Your task to perform on an android device: turn on bluetooth scan Image 0: 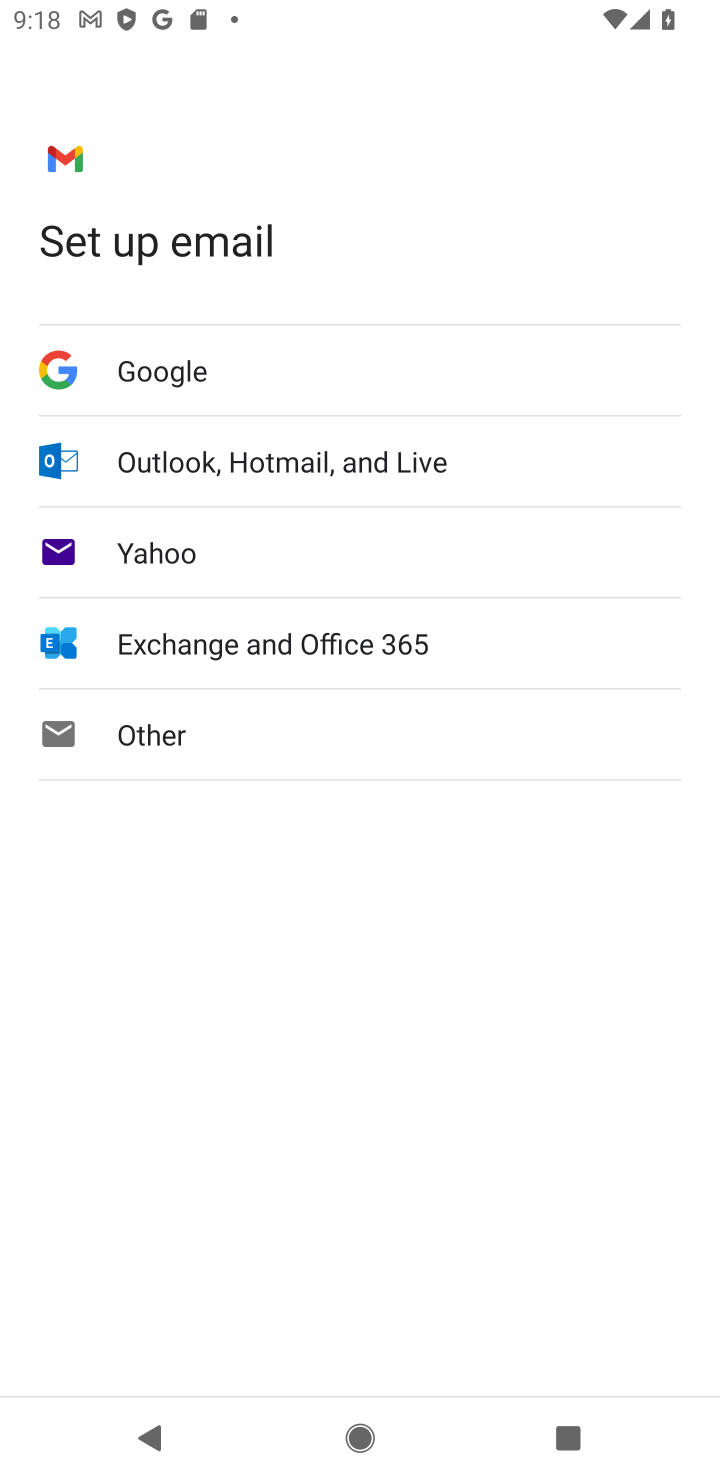
Step 0: press home button
Your task to perform on an android device: turn on bluetooth scan Image 1: 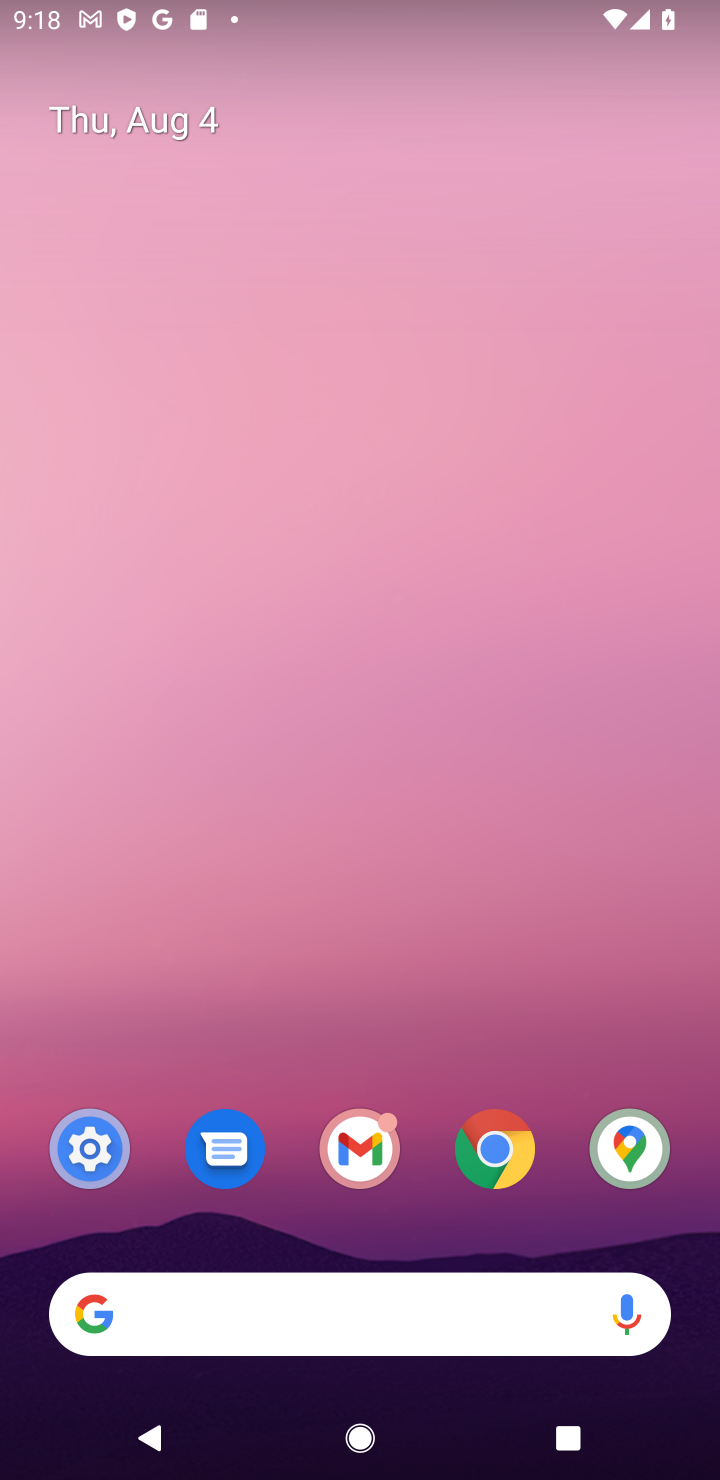
Step 1: click (83, 1144)
Your task to perform on an android device: turn on bluetooth scan Image 2: 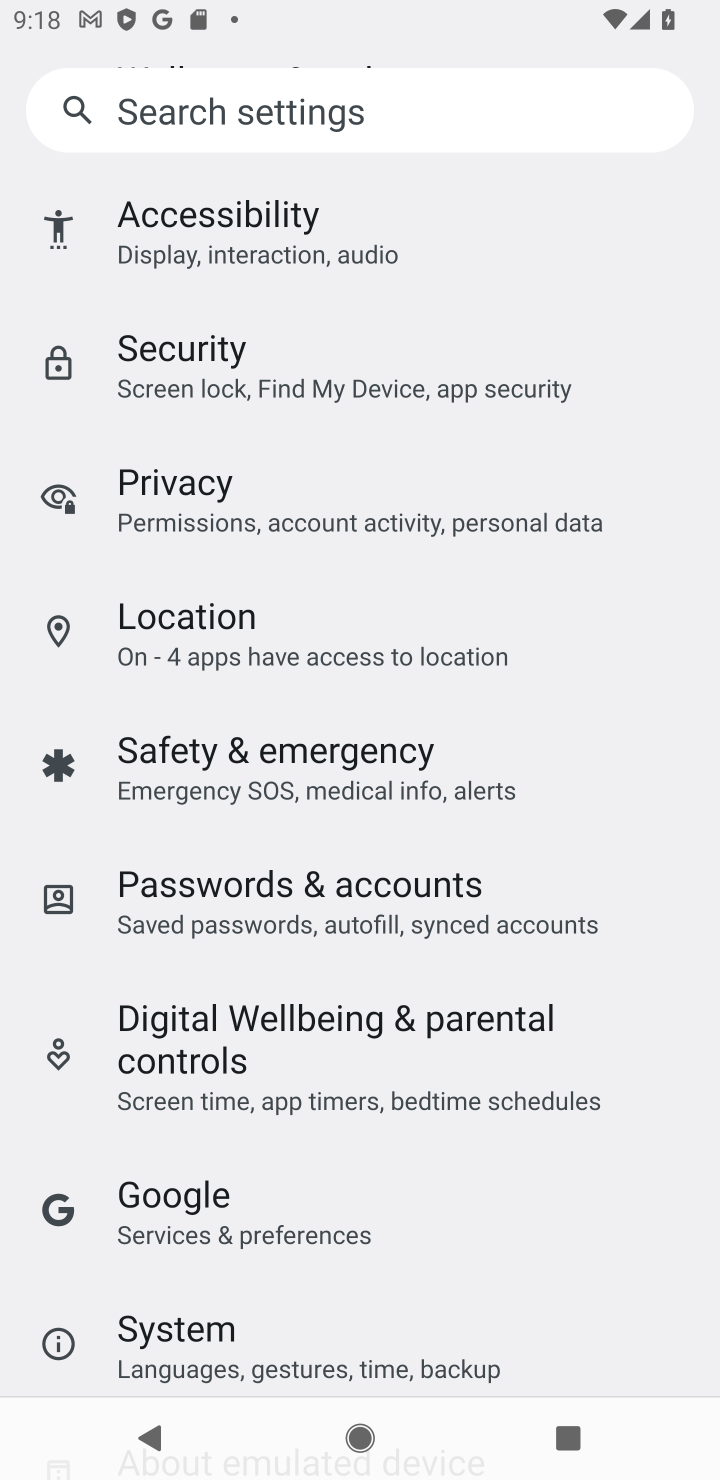
Step 2: drag from (535, 363) to (542, 821)
Your task to perform on an android device: turn on bluetooth scan Image 3: 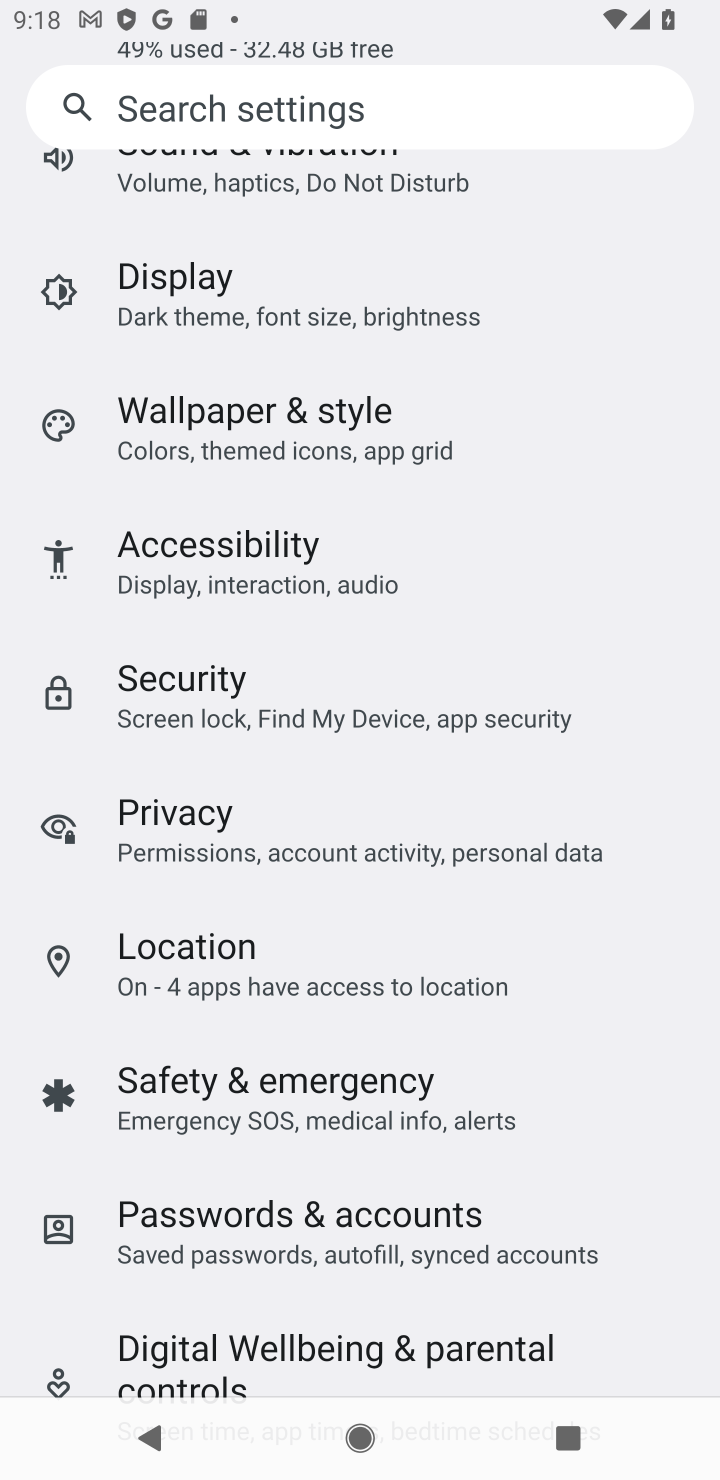
Step 3: click (205, 959)
Your task to perform on an android device: turn on bluetooth scan Image 4: 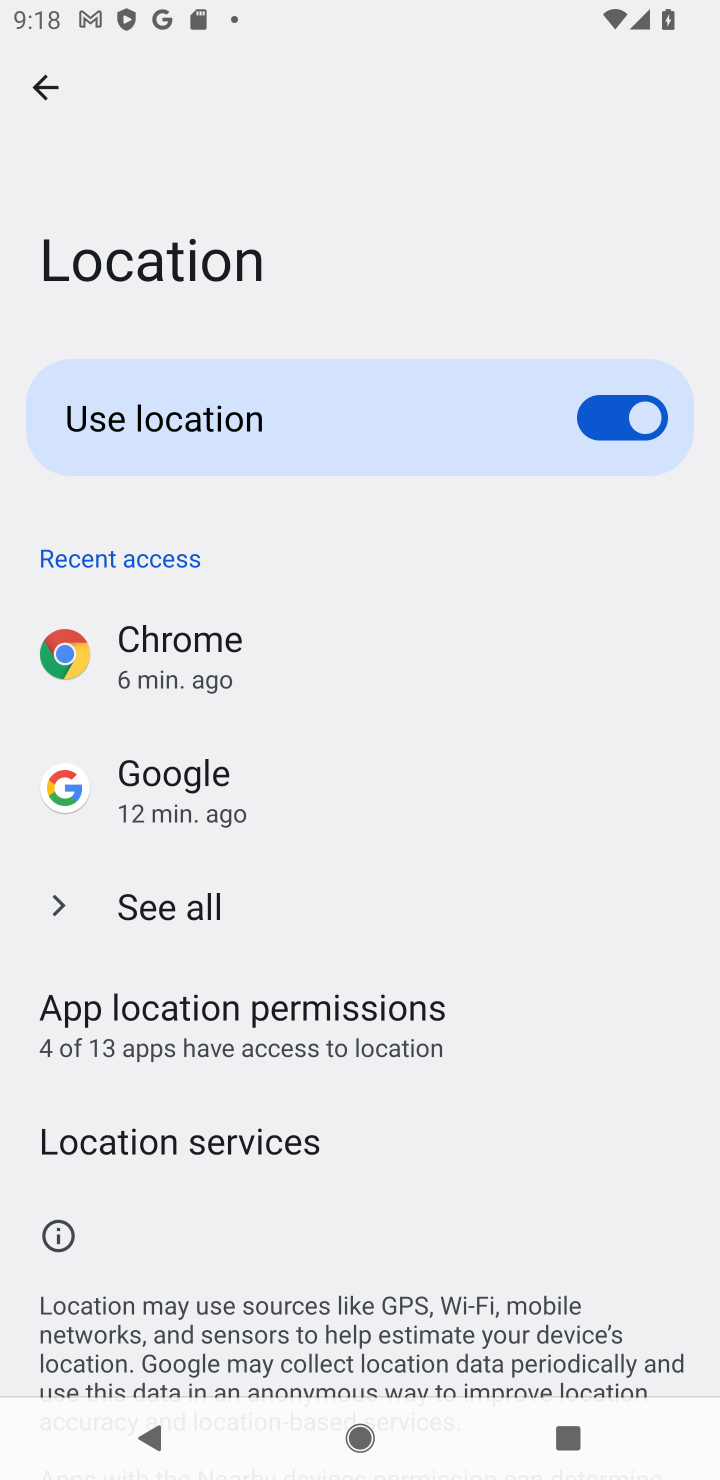
Step 4: click (131, 1135)
Your task to perform on an android device: turn on bluetooth scan Image 5: 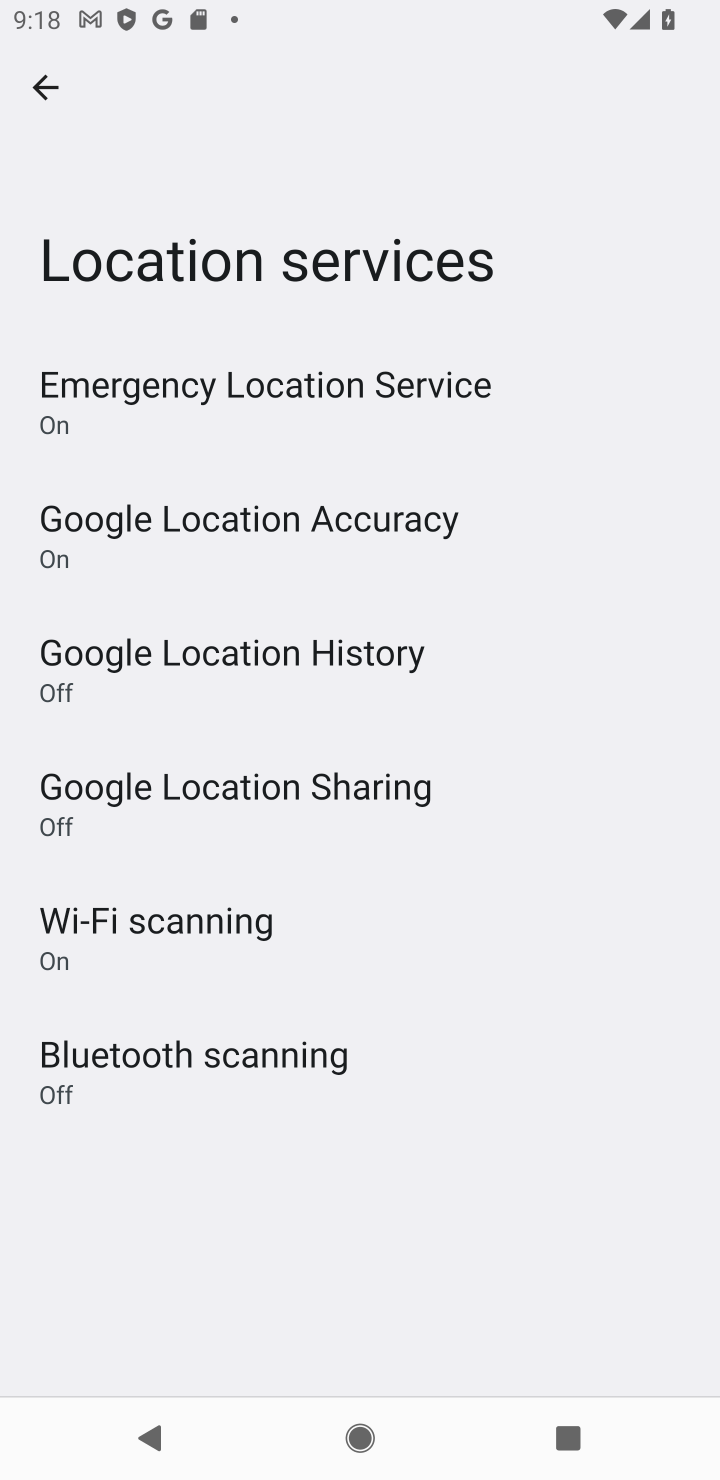
Step 5: click (81, 1072)
Your task to perform on an android device: turn on bluetooth scan Image 6: 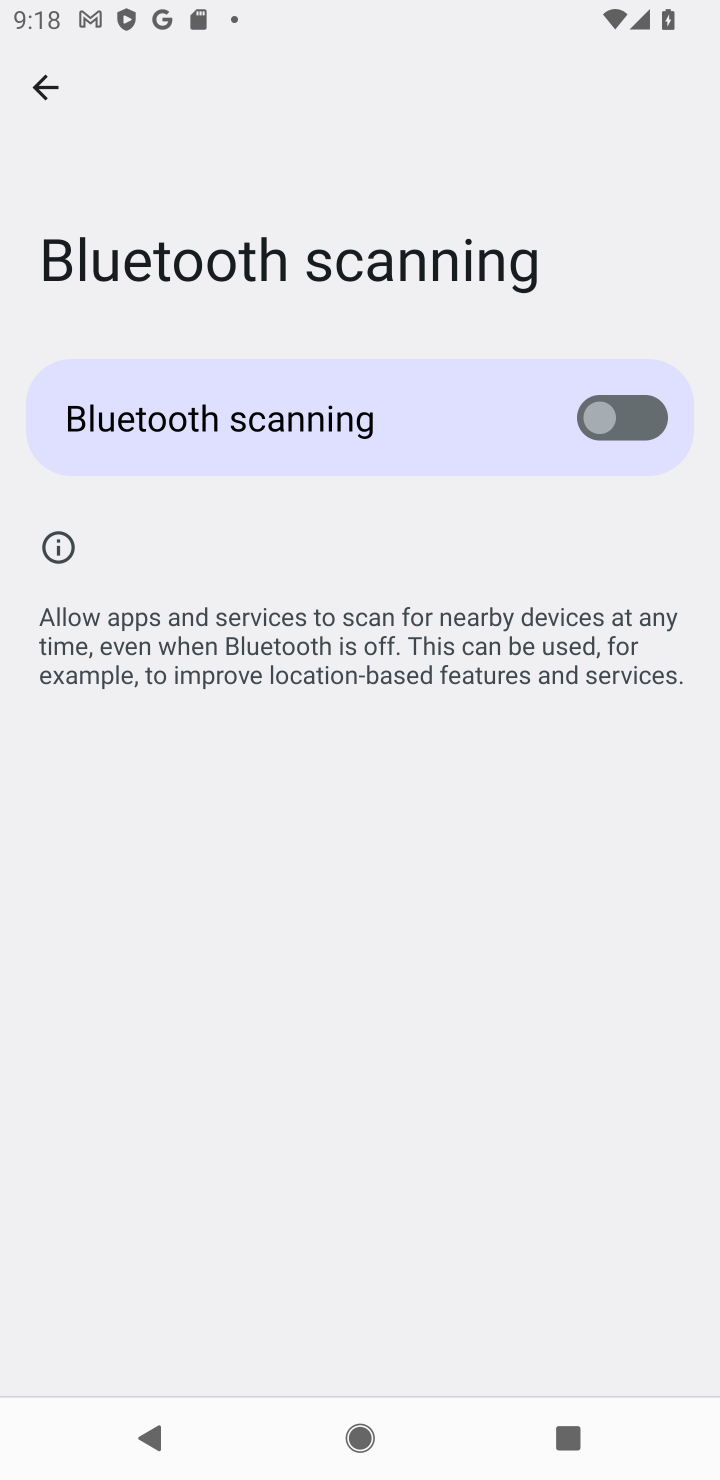
Step 6: click (645, 412)
Your task to perform on an android device: turn on bluetooth scan Image 7: 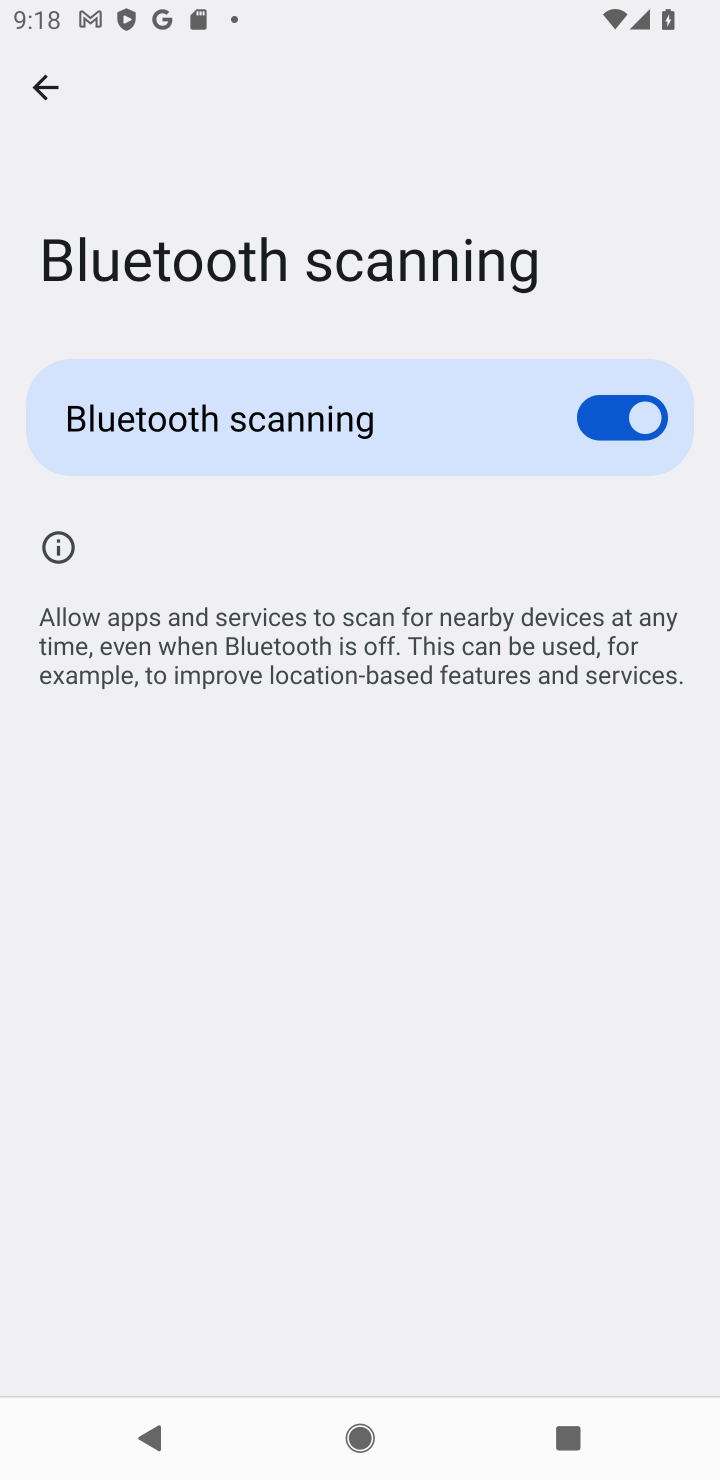
Step 7: task complete